Your task to perform on an android device: Go to Google maps Image 0: 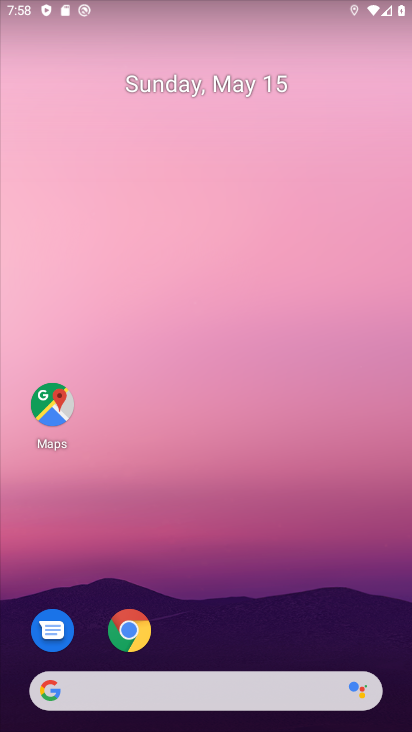
Step 0: click (62, 411)
Your task to perform on an android device: Go to Google maps Image 1: 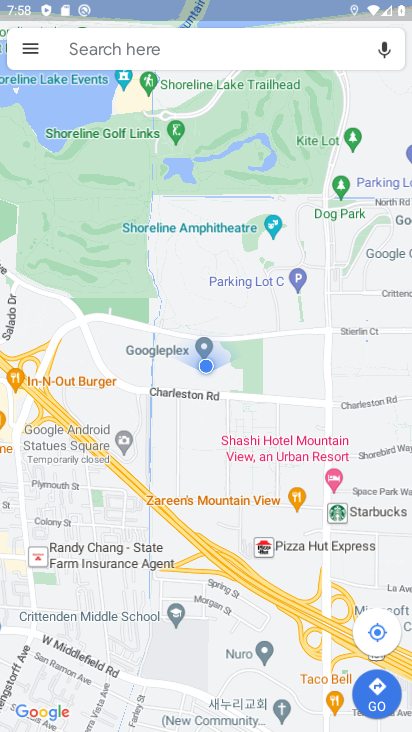
Step 1: task complete